Your task to perform on an android device: Open Wikipedia Image 0: 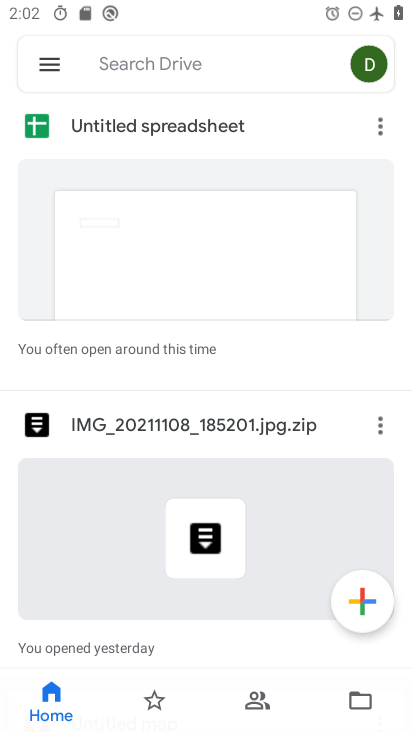
Step 0: press home button
Your task to perform on an android device: Open Wikipedia Image 1: 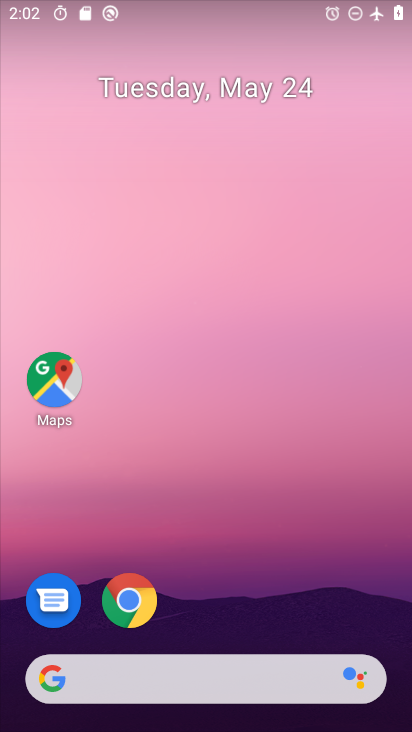
Step 1: click (126, 606)
Your task to perform on an android device: Open Wikipedia Image 2: 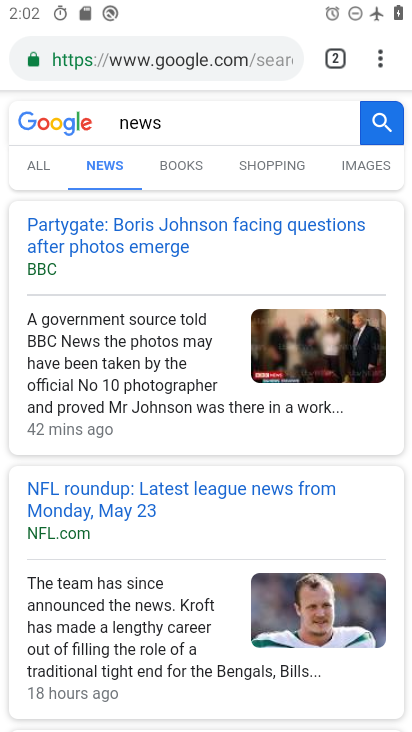
Step 2: click (188, 69)
Your task to perform on an android device: Open Wikipedia Image 3: 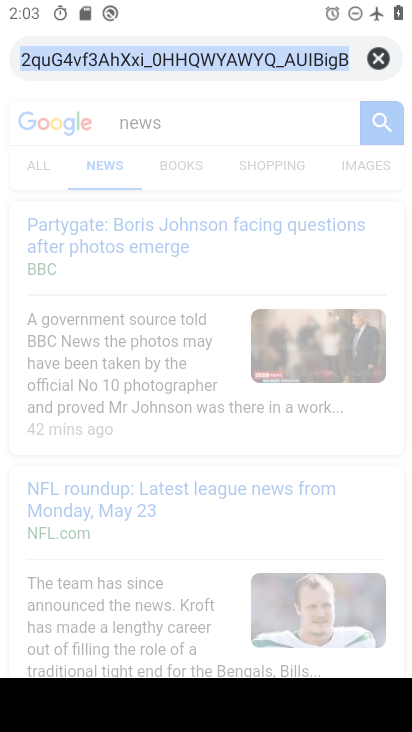
Step 3: type "wikipedia"
Your task to perform on an android device: Open Wikipedia Image 4: 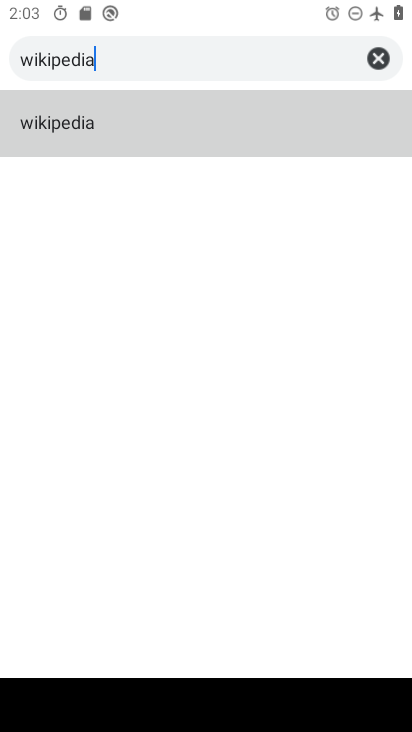
Step 4: click (35, 116)
Your task to perform on an android device: Open Wikipedia Image 5: 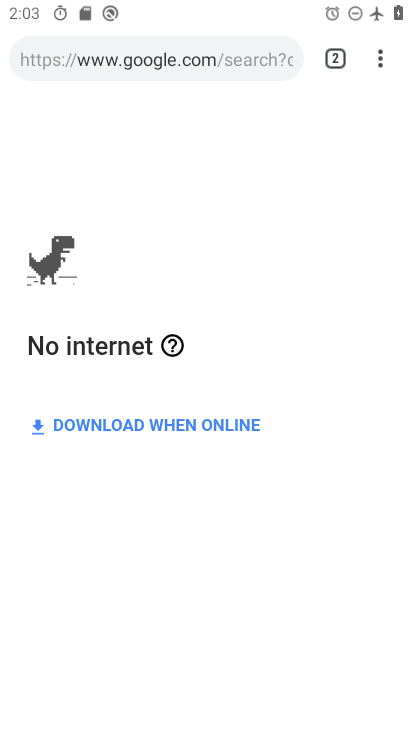
Step 5: task complete